Your task to perform on an android device: Set an alarm for 6am Image 0: 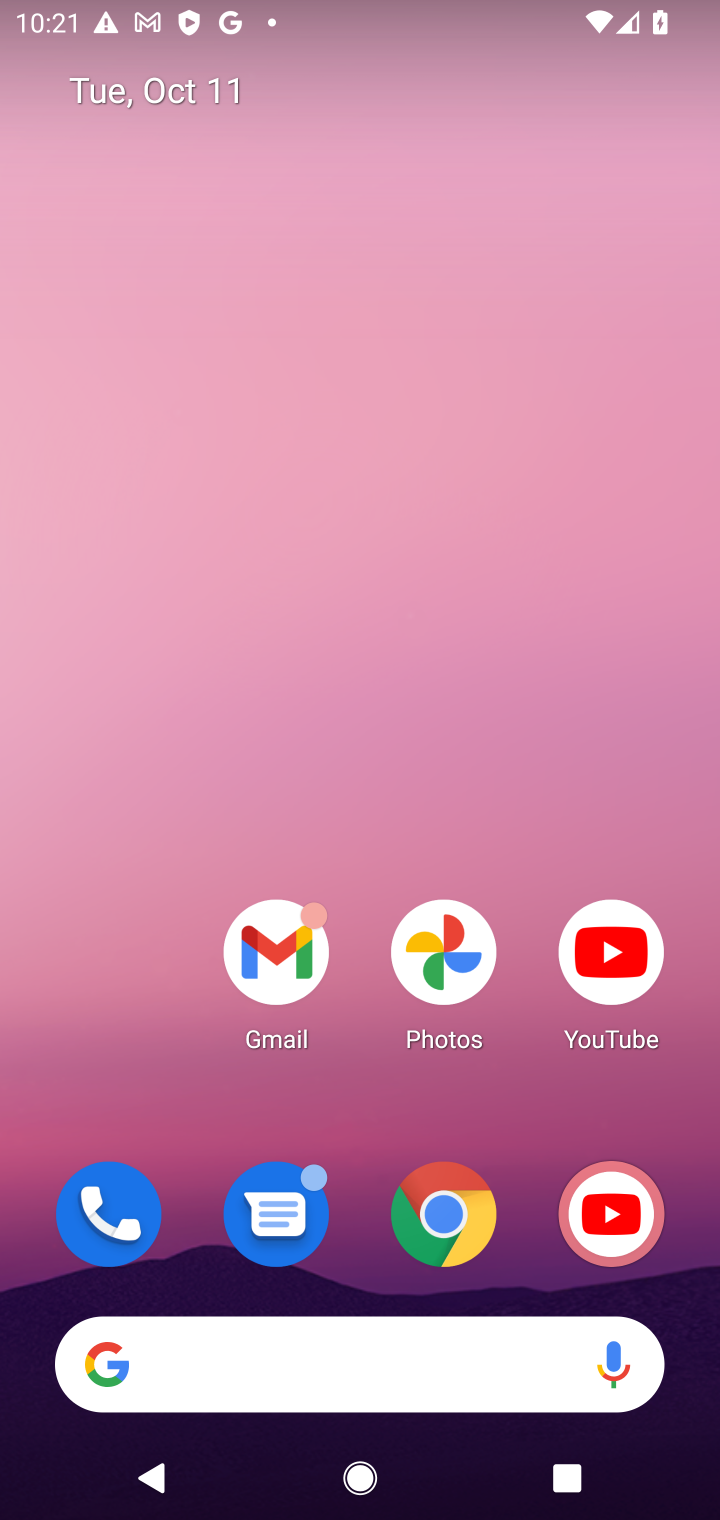
Step 0: drag from (396, 923) to (556, 34)
Your task to perform on an android device: Set an alarm for 6am Image 1: 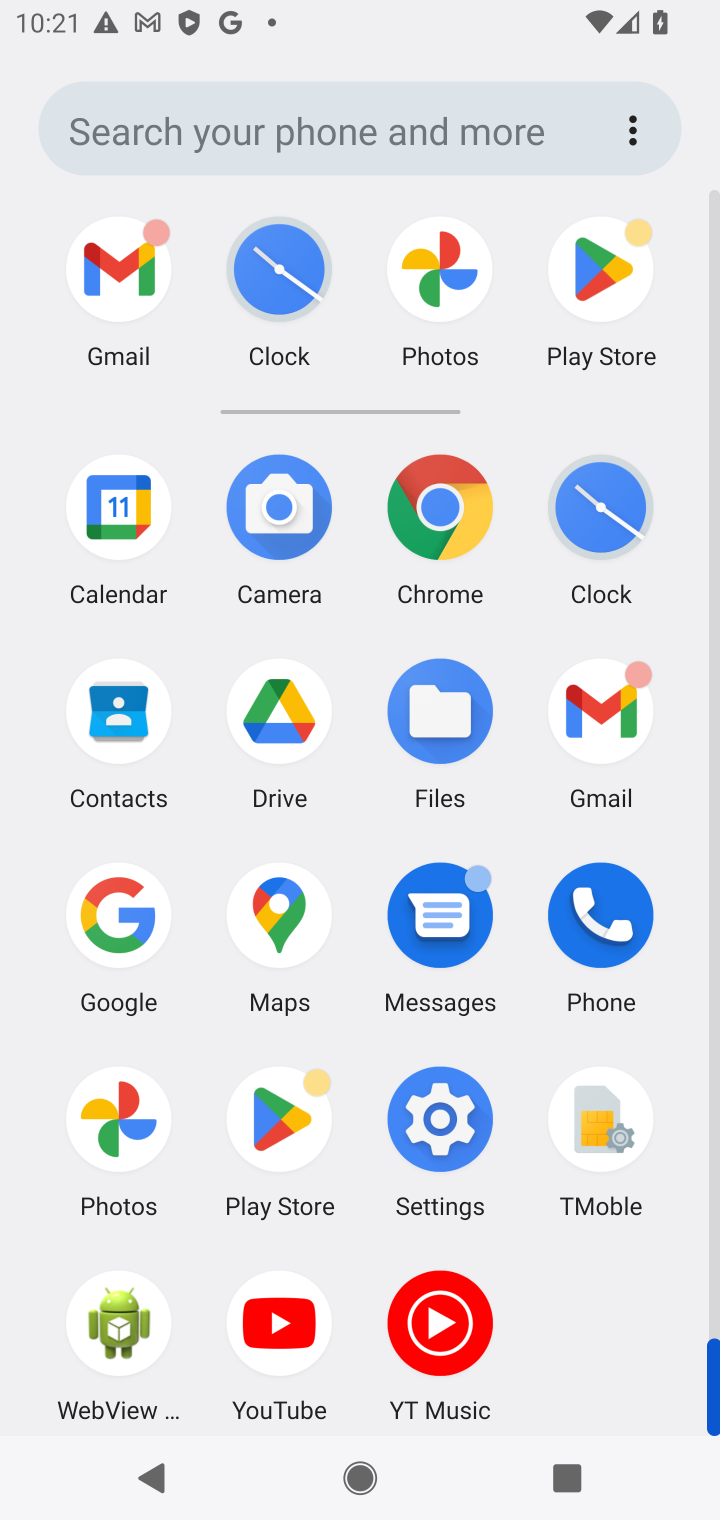
Step 1: click (574, 510)
Your task to perform on an android device: Set an alarm for 6am Image 2: 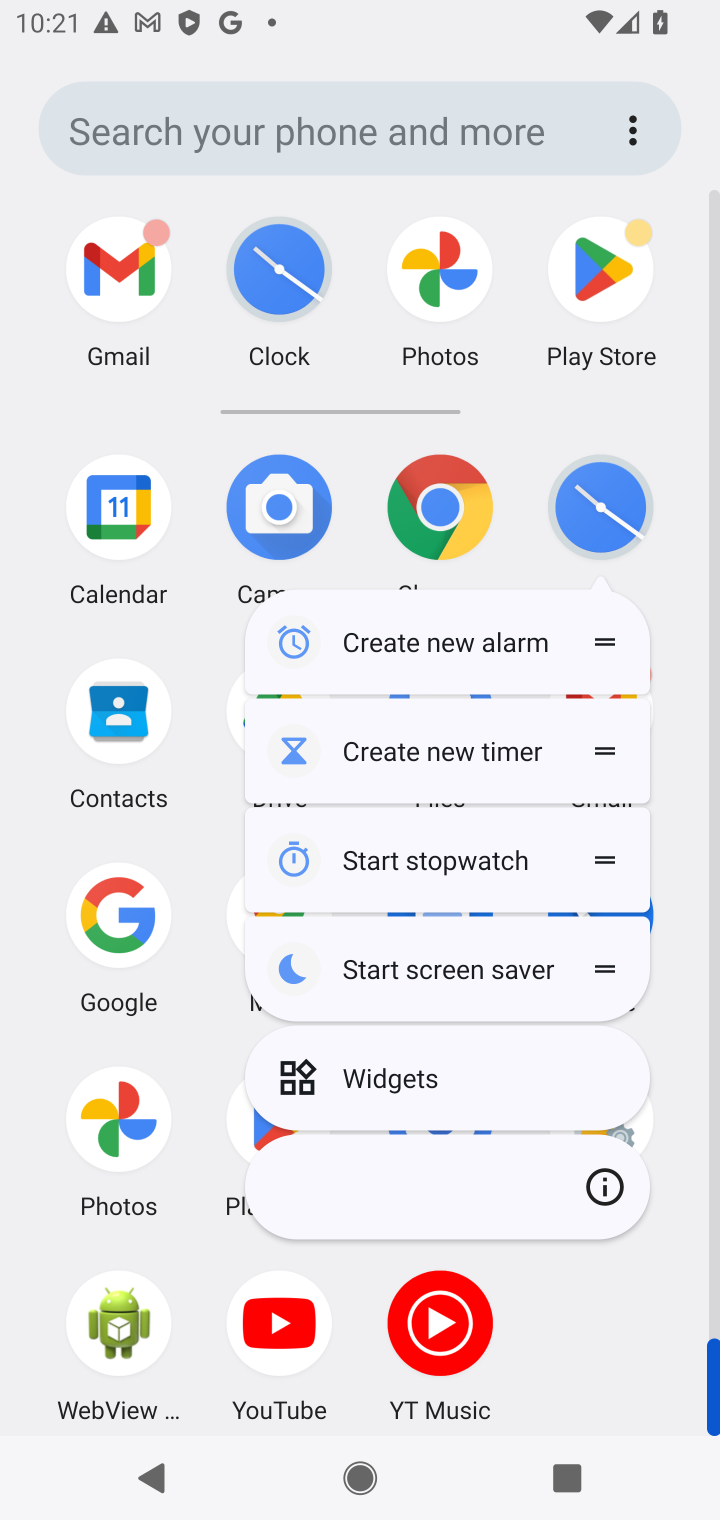
Step 2: click (446, 507)
Your task to perform on an android device: Set an alarm for 6am Image 3: 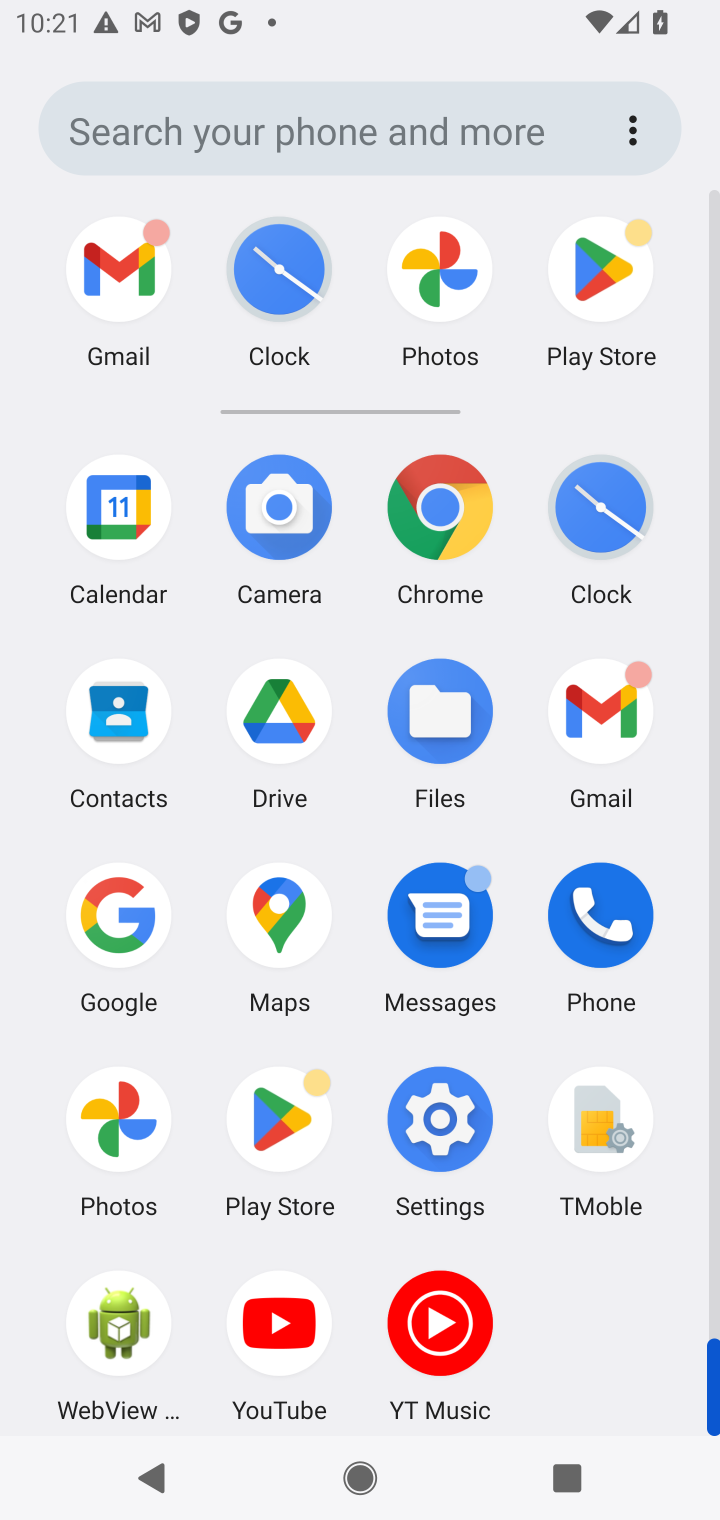
Step 3: click (579, 501)
Your task to perform on an android device: Set an alarm for 6am Image 4: 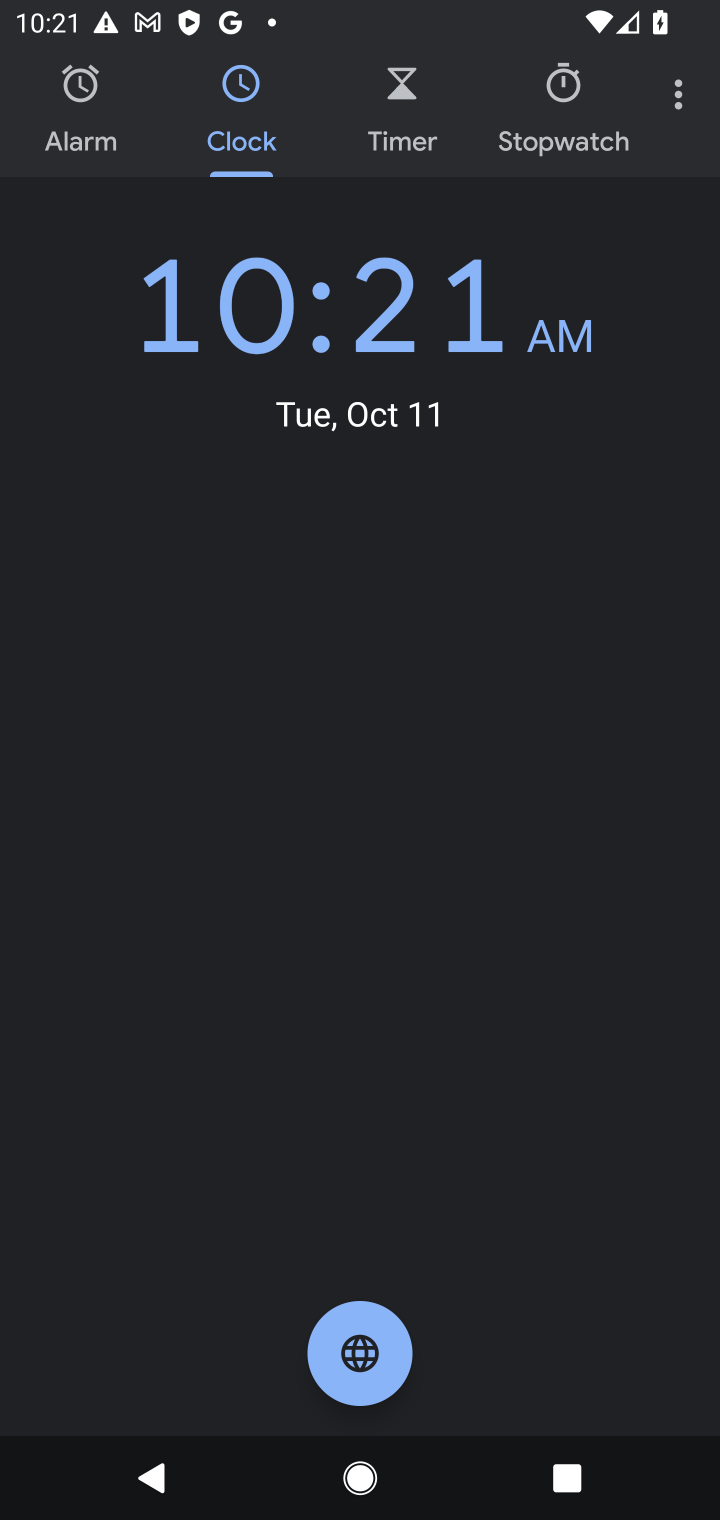
Step 4: click (74, 122)
Your task to perform on an android device: Set an alarm for 6am Image 5: 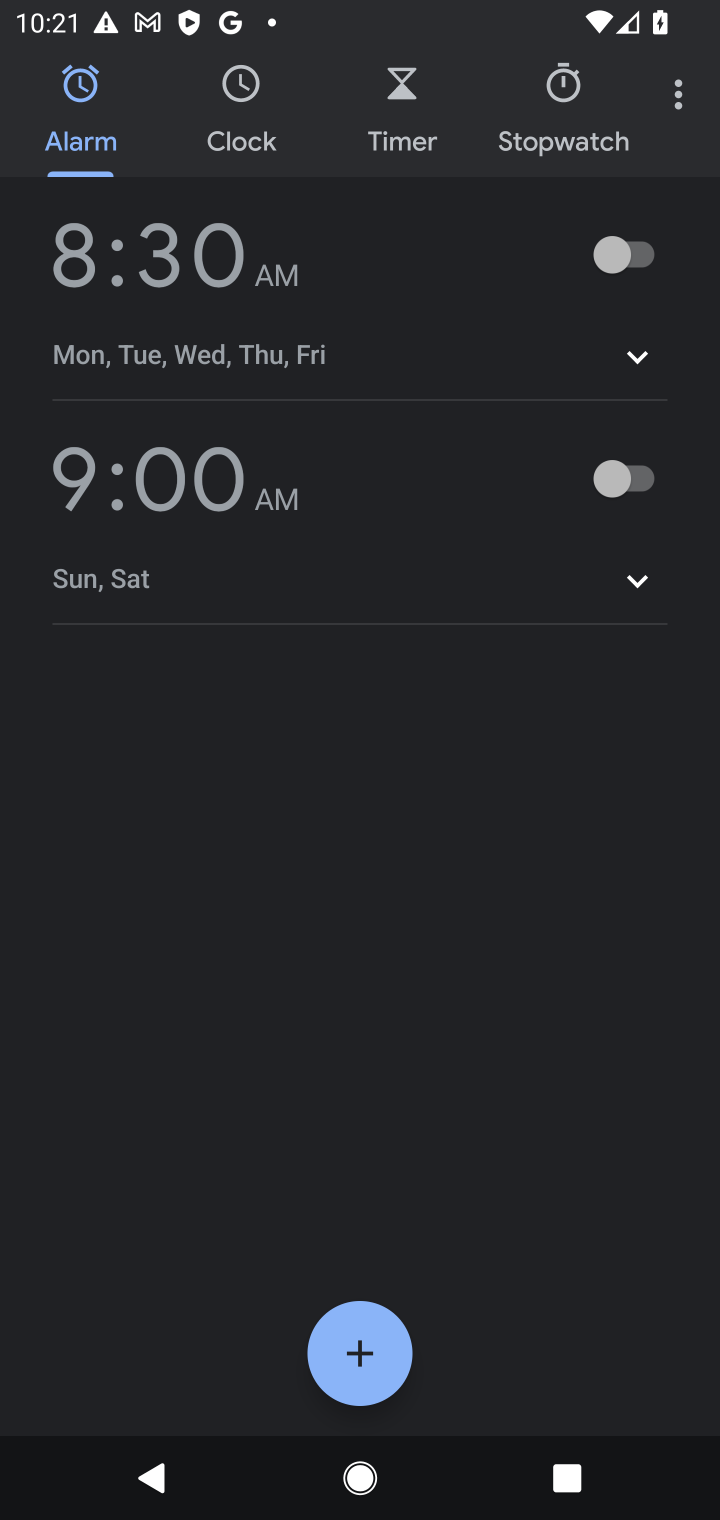
Step 5: click (353, 1327)
Your task to perform on an android device: Set an alarm for 6am Image 6: 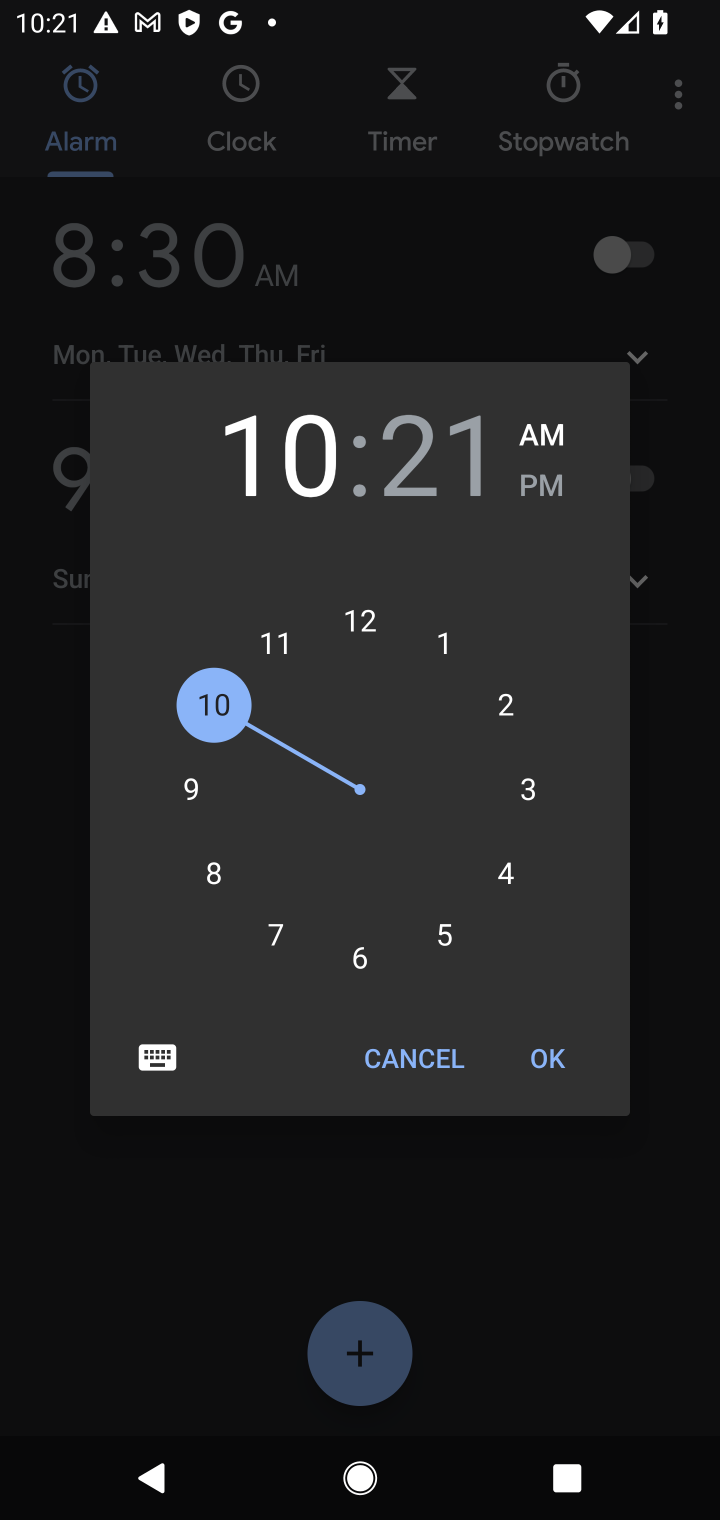
Step 6: click (376, 948)
Your task to perform on an android device: Set an alarm for 6am Image 7: 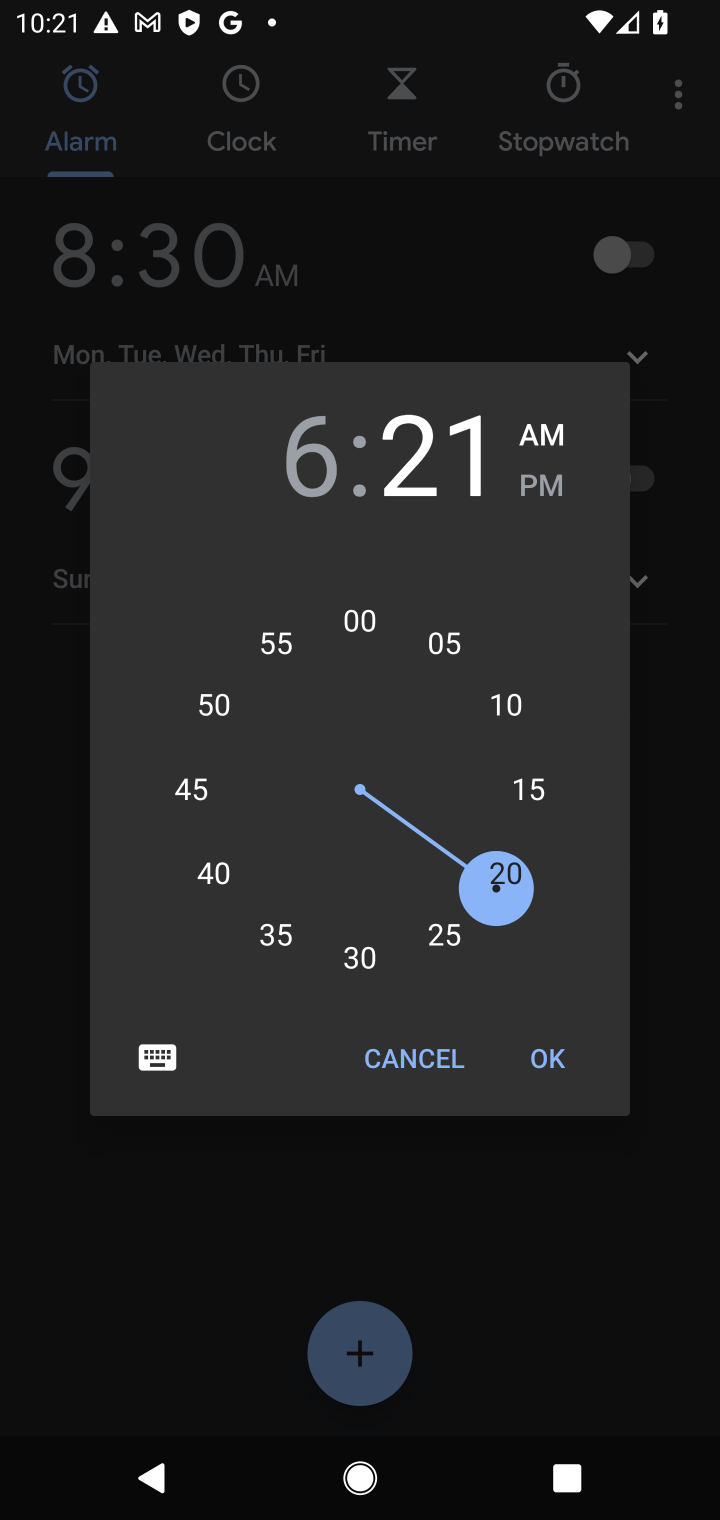
Step 7: click (363, 613)
Your task to perform on an android device: Set an alarm for 6am Image 8: 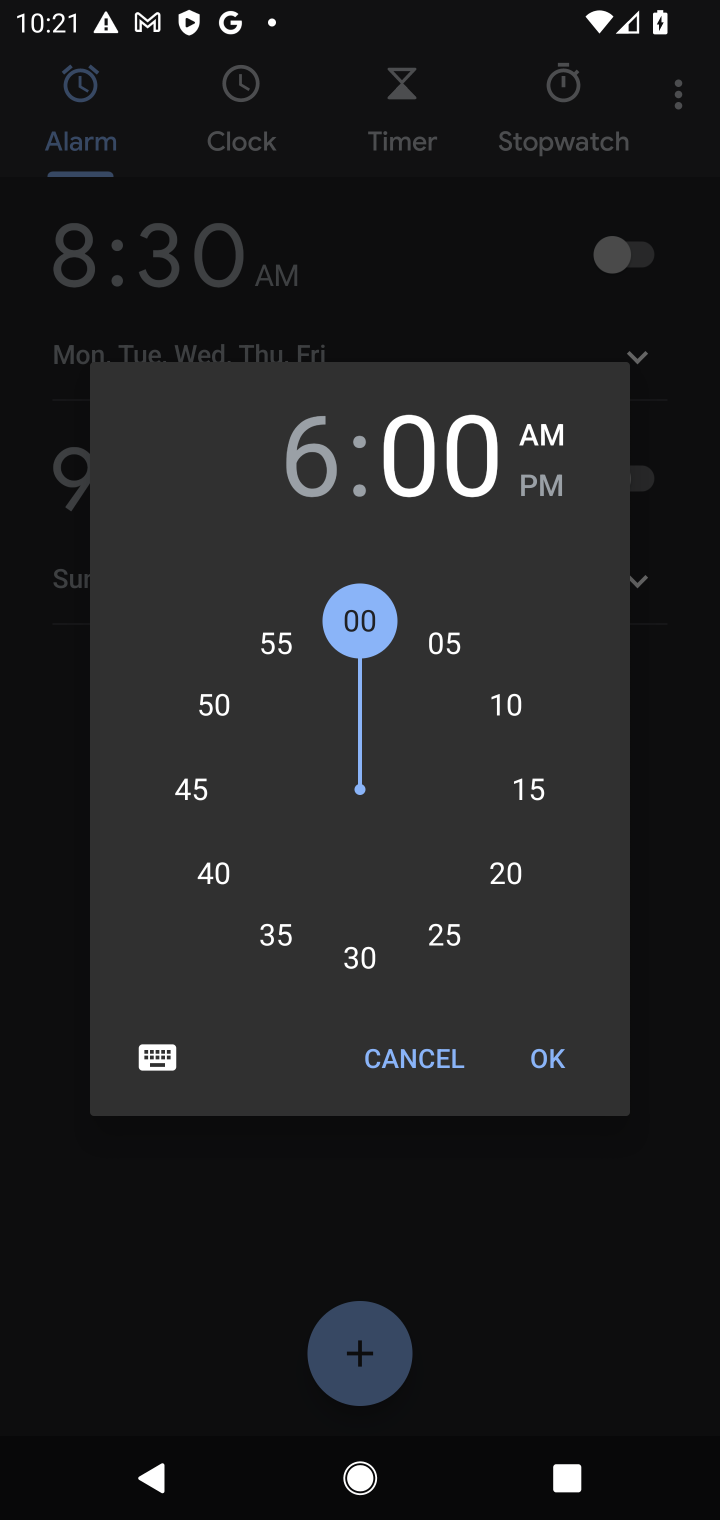
Step 8: click (555, 1074)
Your task to perform on an android device: Set an alarm for 6am Image 9: 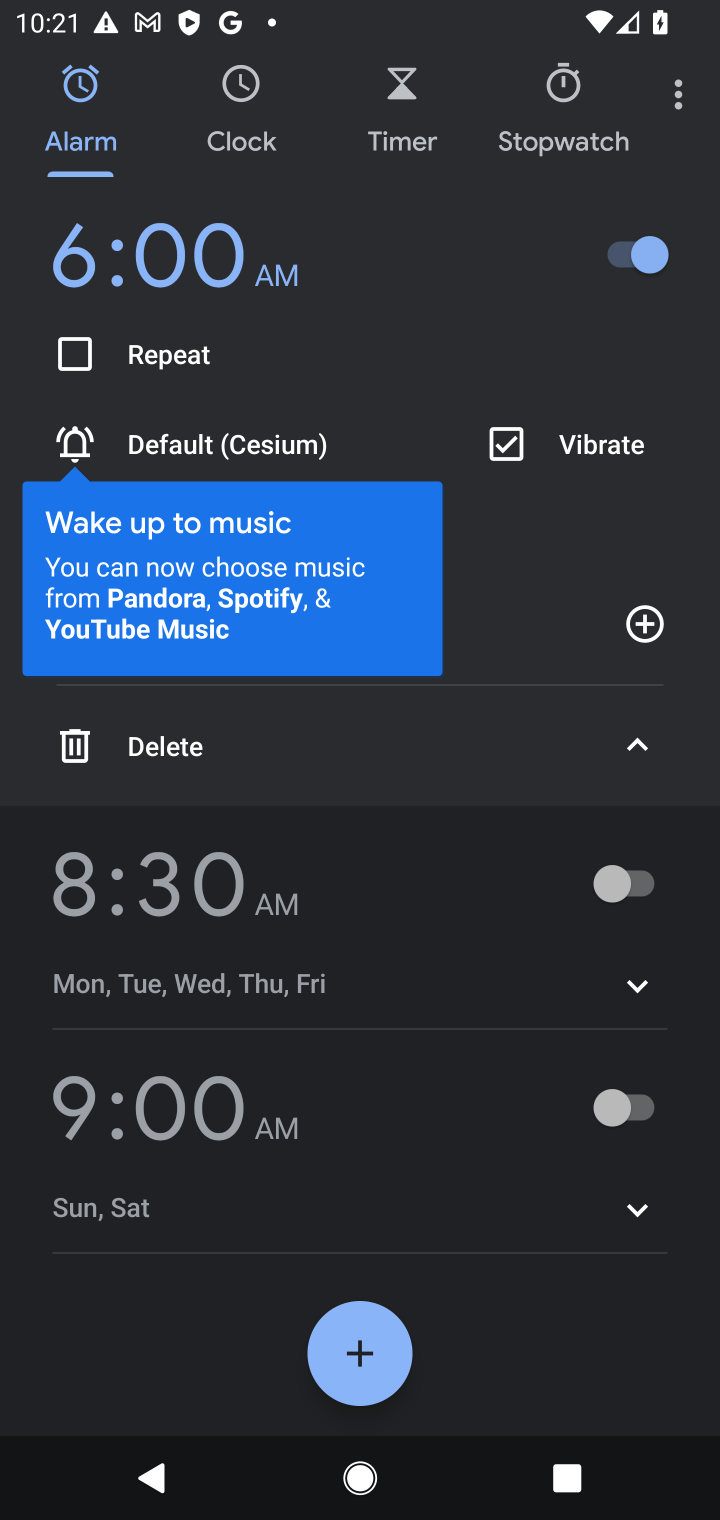
Step 9: task complete